Your task to perform on an android device: change the clock display to show seconds Image 0: 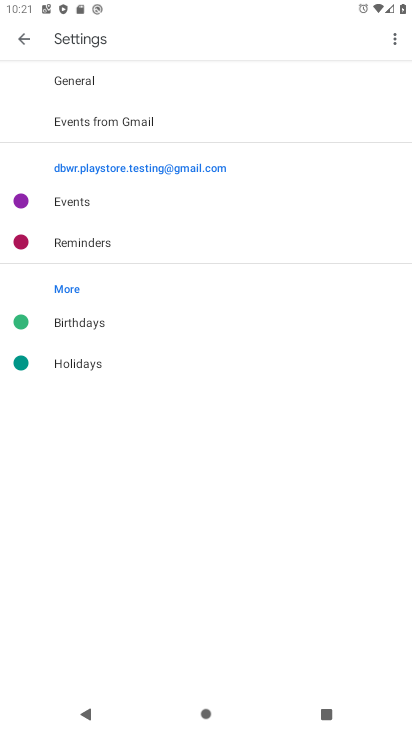
Step 0: press back button
Your task to perform on an android device: change the clock display to show seconds Image 1: 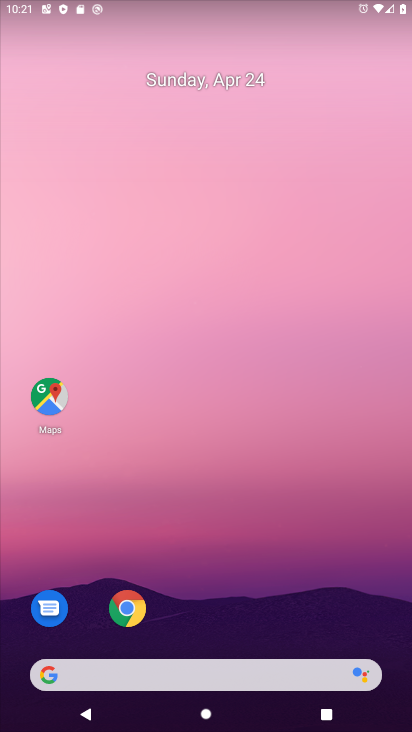
Step 1: drag from (201, 525) to (164, 13)
Your task to perform on an android device: change the clock display to show seconds Image 2: 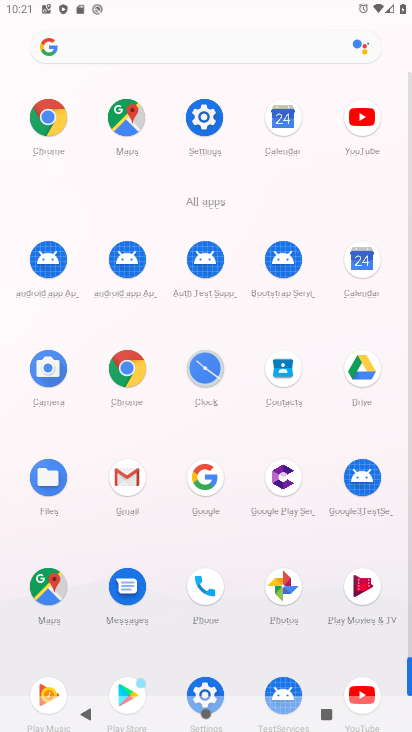
Step 2: drag from (18, 608) to (7, 328)
Your task to perform on an android device: change the clock display to show seconds Image 3: 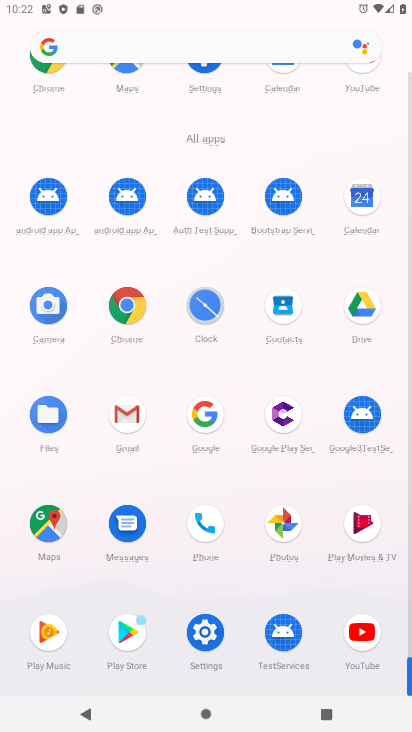
Step 3: drag from (3, 600) to (0, 326)
Your task to perform on an android device: change the clock display to show seconds Image 4: 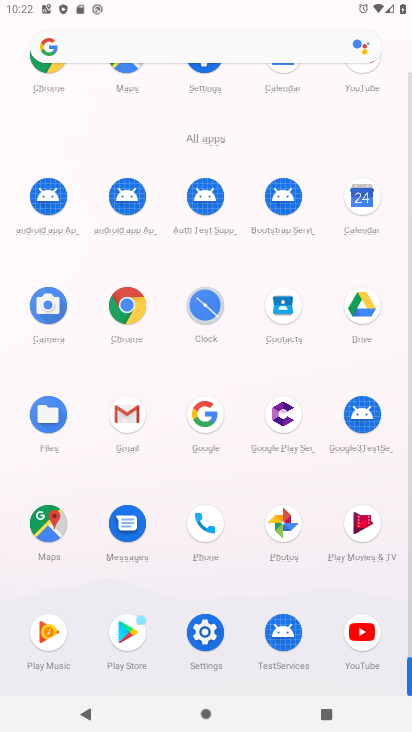
Step 4: click (206, 299)
Your task to perform on an android device: change the clock display to show seconds Image 5: 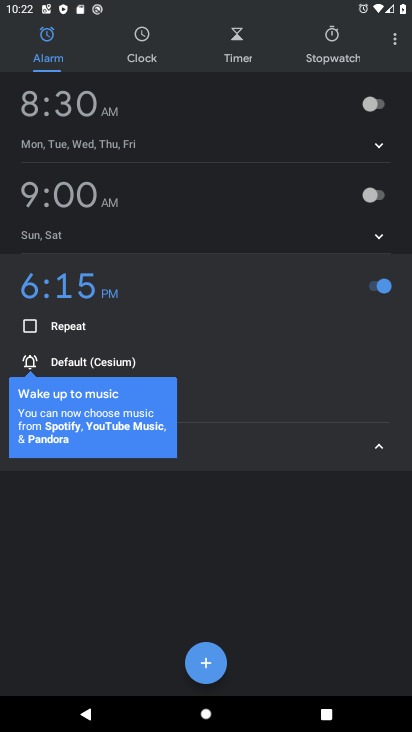
Step 5: click (395, 36)
Your task to perform on an android device: change the clock display to show seconds Image 6: 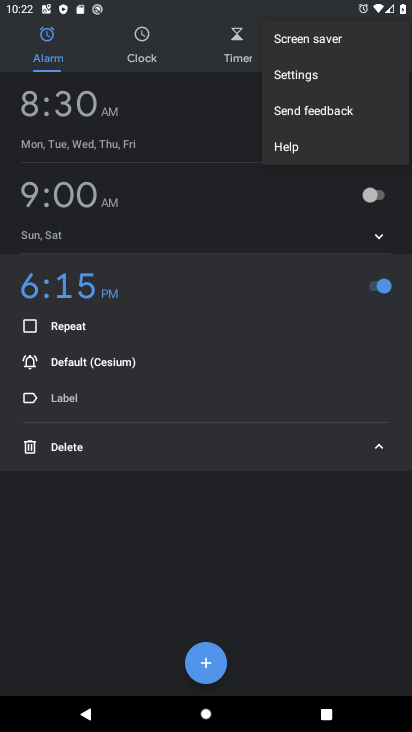
Step 6: click (326, 82)
Your task to perform on an android device: change the clock display to show seconds Image 7: 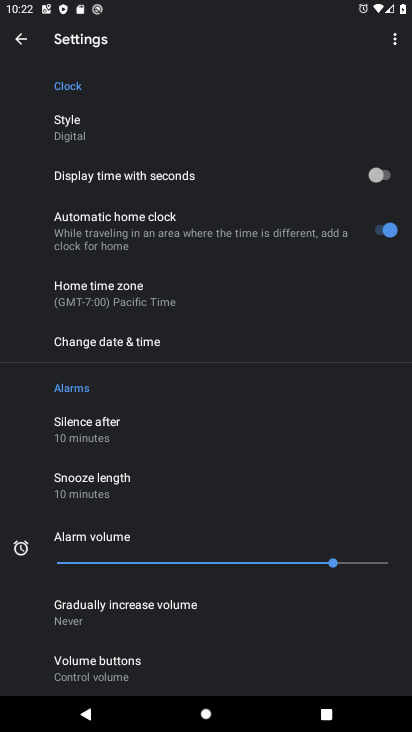
Step 7: click (367, 170)
Your task to perform on an android device: change the clock display to show seconds Image 8: 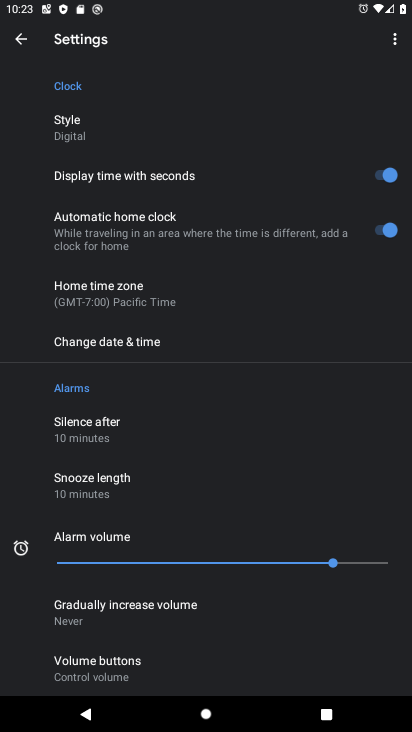
Step 8: task complete